Your task to perform on an android device: turn pop-ups off in chrome Image 0: 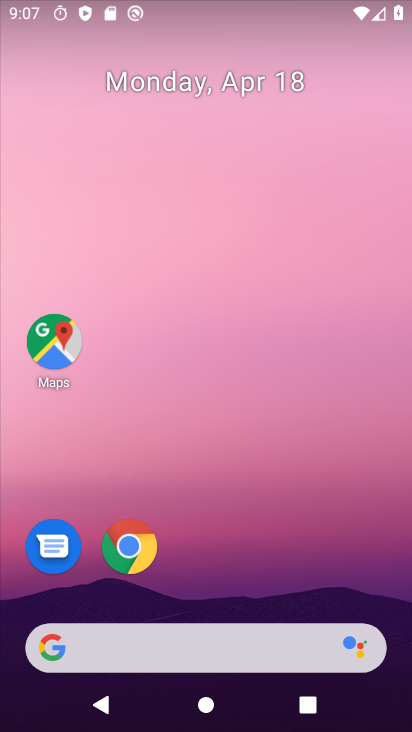
Step 0: drag from (275, 368) to (365, 92)
Your task to perform on an android device: turn pop-ups off in chrome Image 1: 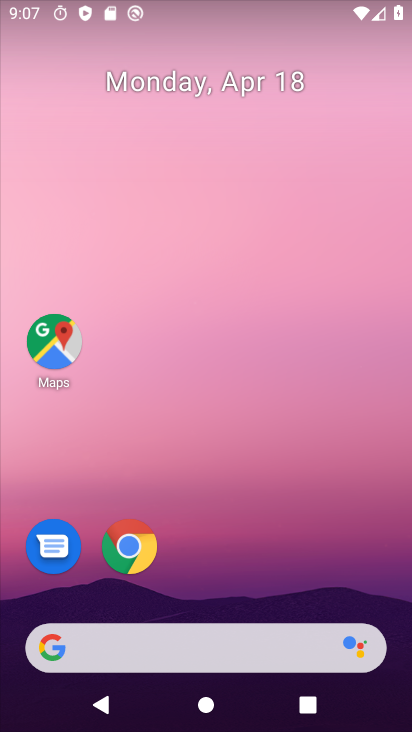
Step 1: drag from (345, 570) to (397, 123)
Your task to perform on an android device: turn pop-ups off in chrome Image 2: 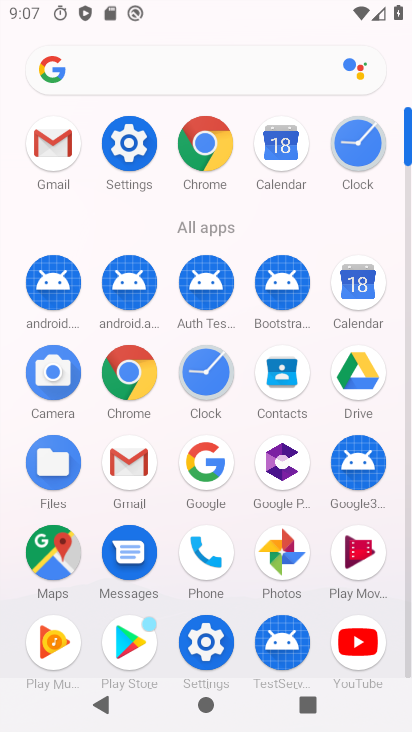
Step 2: click (205, 123)
Your task to perform on an android device: turn pop-ups off in chrome Image 3: 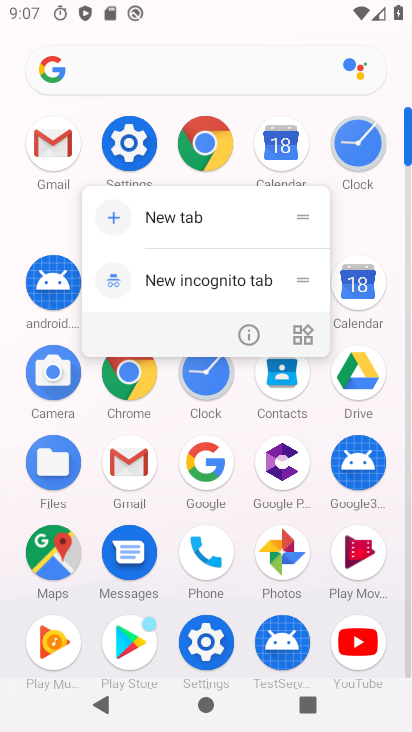
Step 3: click (248, 335)
Your task to perform on an android device: turn pop-ups off in chrome Image 4: 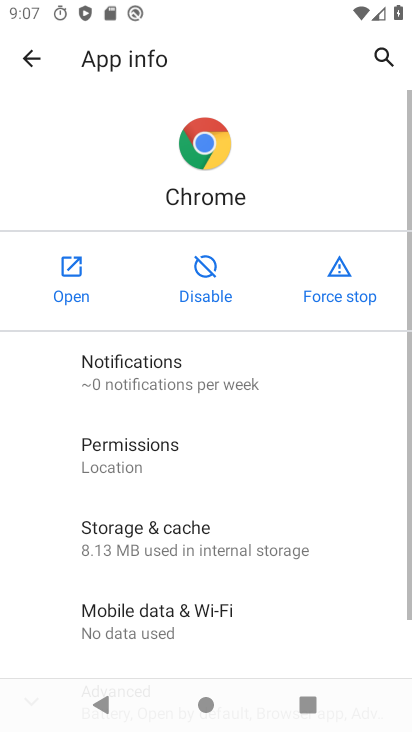
Step 4: drag from (260, 465) to (269, 182)
Your task to perform on an android device: turn pop-ups off in chrome Image 5: 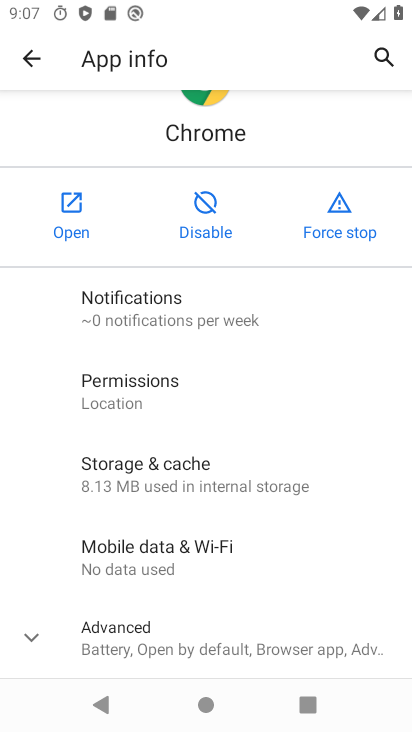
Step 5: click (152, 634)
Your task to perform on an android device: turn pop-ups off in chrome Image 6: 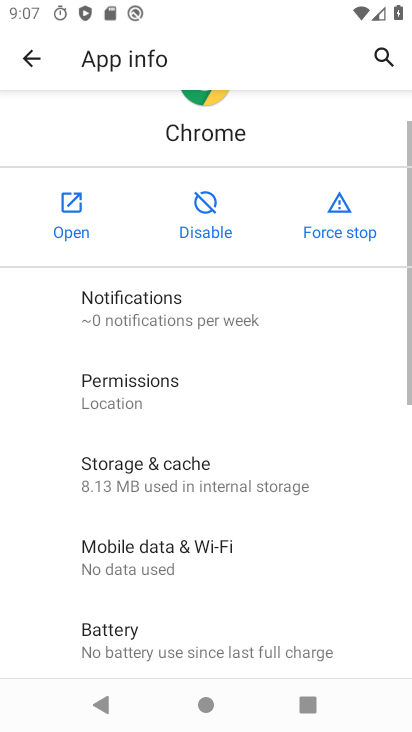
Step 6: drag from (152, 628) to (176, 166)
Your task to perform on an android device: turn pop-ups off in chrome Image 7: 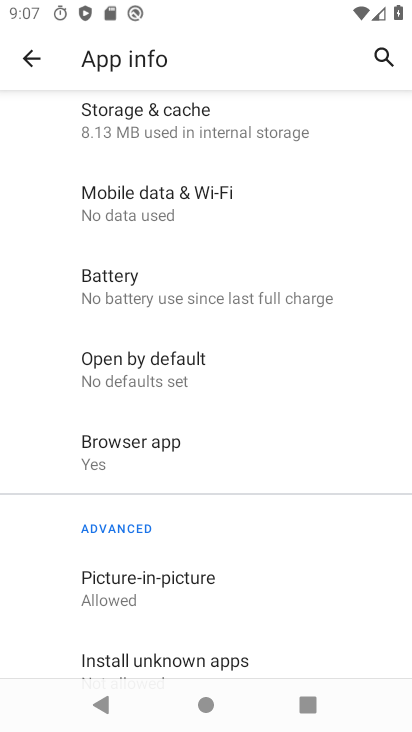
Step 7: drag from (212, 531) to (252, 227)
Your task to perform on an android device: turn pop-ups off in chrome Image 8: 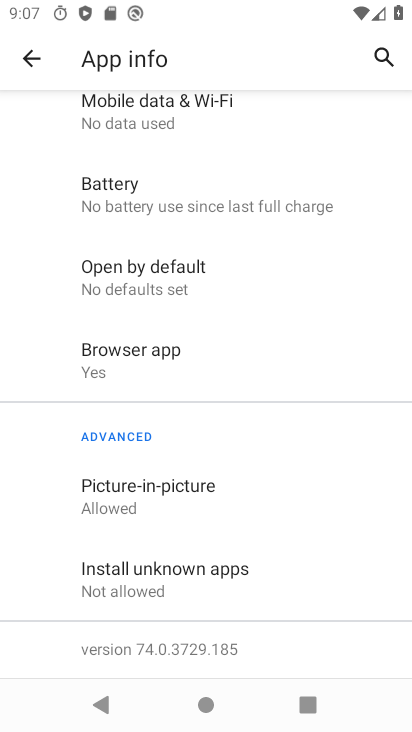
Step 8: drag from (252, 227) to (211, 548)
Your task to perform on an android device: turn pop-ups off in chrome Image 9: 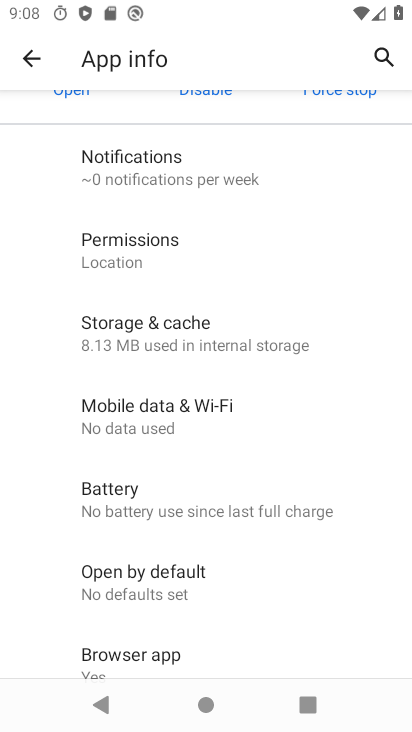
Step 9: drag from (166, 547) to (216, 165)
Your task to perform on an android device: turn pop-ups off in chrome Image 10: 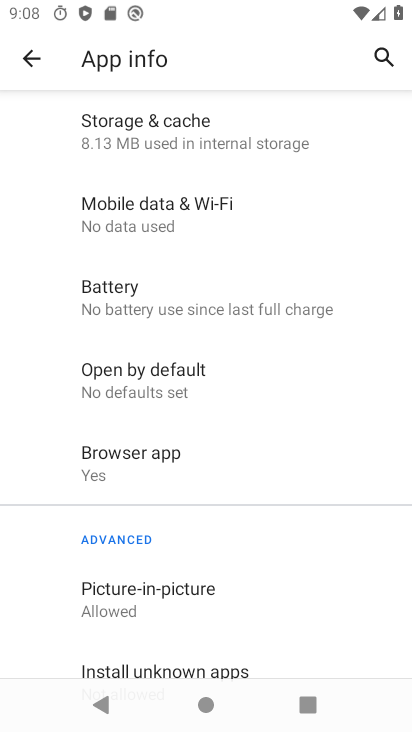
Step 10: click (109, 708)
Your task to perform on an android device: turn pop-ups off in chrome Image 11: 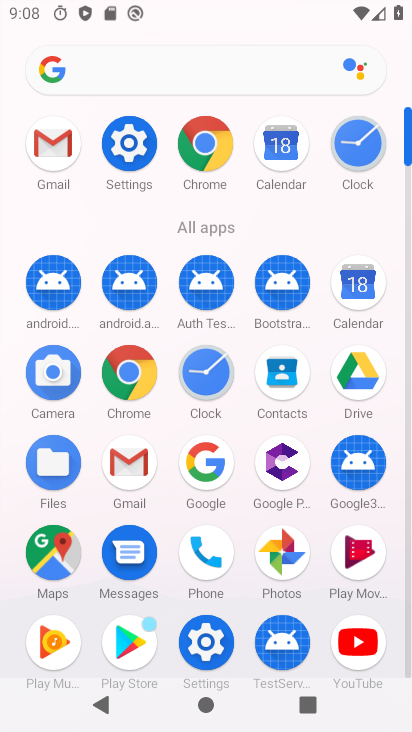
Step 11: click (212, 159)
Your task to perform on an android device: turn pop-ups off in chrome Image 12: 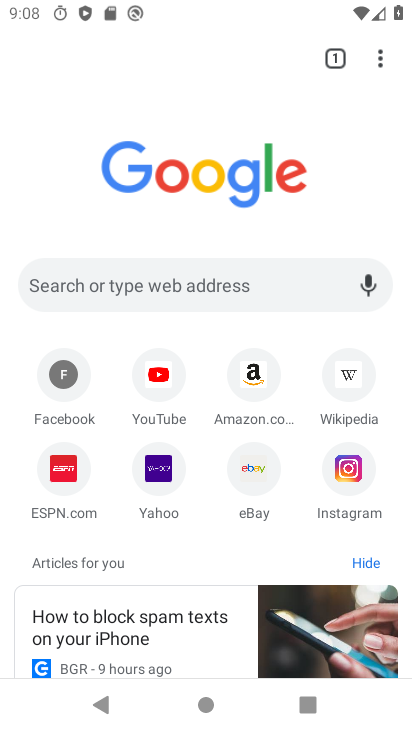
Step 12: drag from (379, 53) to (183, 499)
Your task to perform on an android device: turn pop-ups off in chrome Image 13: 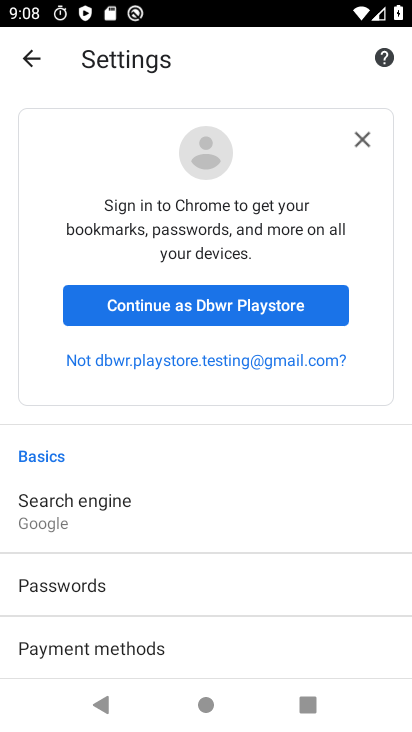
Step 13: drag from (176, 622) to (178, 274)
Your task to perform on an android device: turn pop-ups off in chrome Image 14: 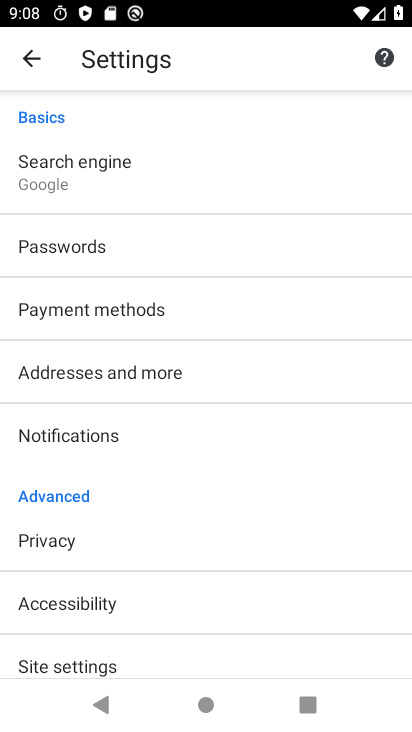
Step 14: drag from (218, 467) to (197, 297)
Your task to perform on an android device: turn pop-ups off in chrome Image 15: 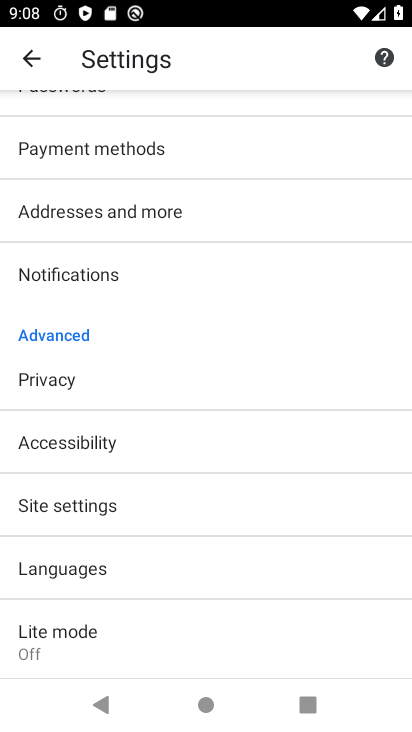
Step 15: click (65, 499)
Your task to perform on an android device: turn pop-ups off in chrome Image 16: 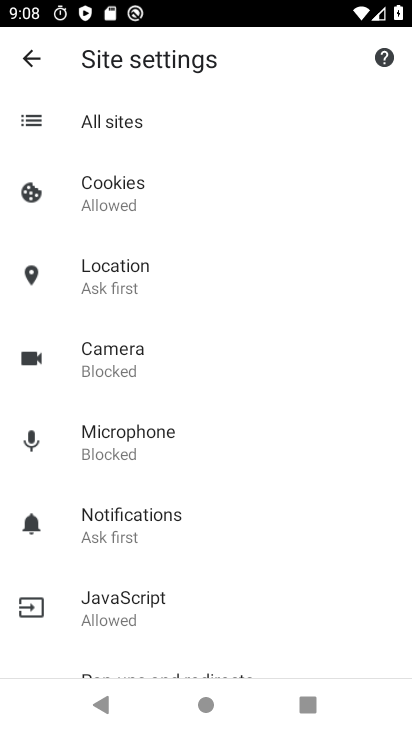
Step 16: drag from (163, 445) to (236, 214)
Your task to perform on an android device: turn pop-ups off in chrome Image 17: 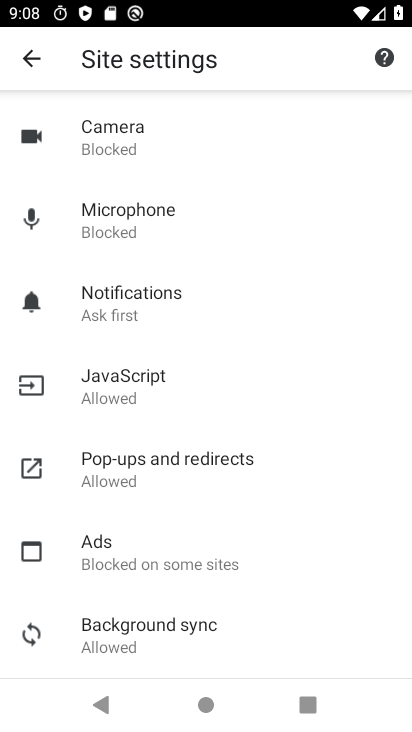
Step 17: click (122, 471)
Your task to perform on an android device: turn pop-ups off in chrome Image 18: 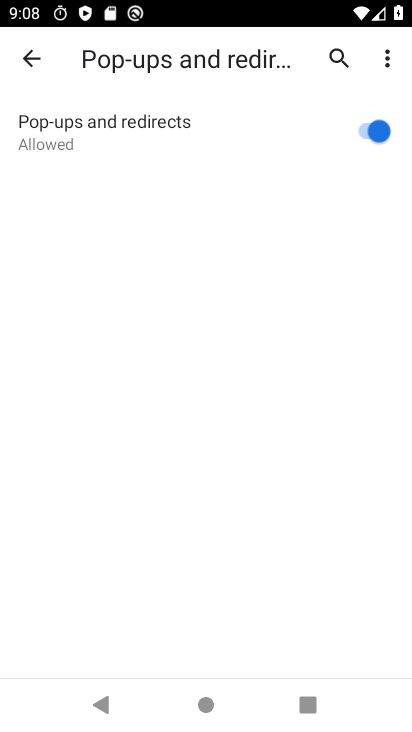
Step 18: click (370, 139)
Your task to perform on an android device: turn pop-ups off in chrome Image 19: 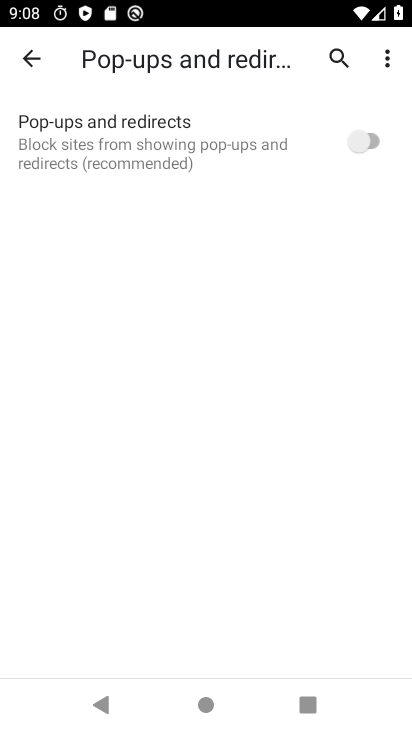
Step 19: task complete